Your task to perform on an android device: change alarm snooze length Image 0: 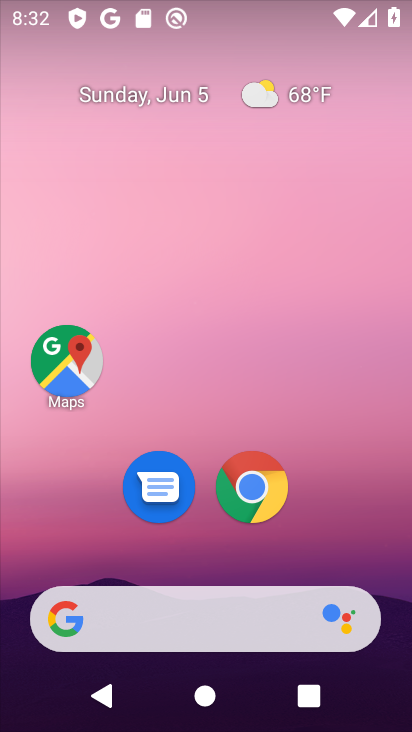
Step 0: drag from (201, 554) to (248, 0)
Your task to perform on an android device: change alarm snooze length Image 1: 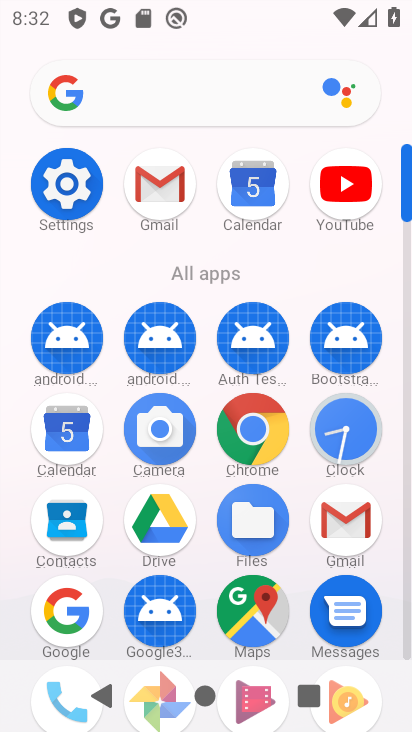
Step 1: click (348, 431)
Your task to perform on an android device: change alarm snooze length Image 2: 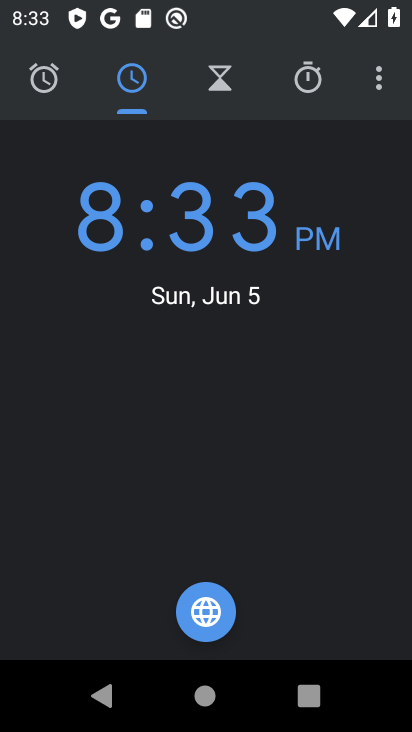
Step 2: click (375, 87)
Your task to perform on an android device: change alarm snooze length Image 3: 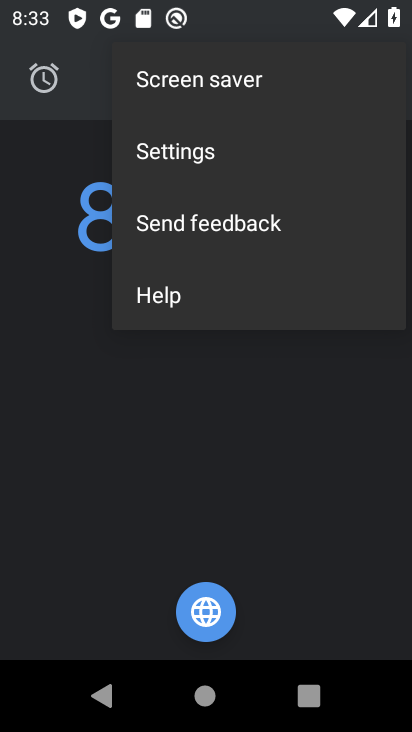
Step 3: click (176, 142)
Your task to perform on an android device: change alarm snooze length Image 4: 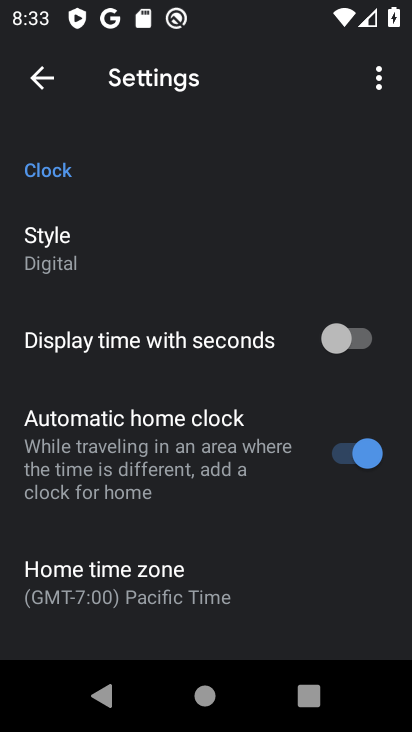
Step 4: drag from (169, 588) to (234, 270)
Your task to perform on an android device: change alarm snooze length Image 5: 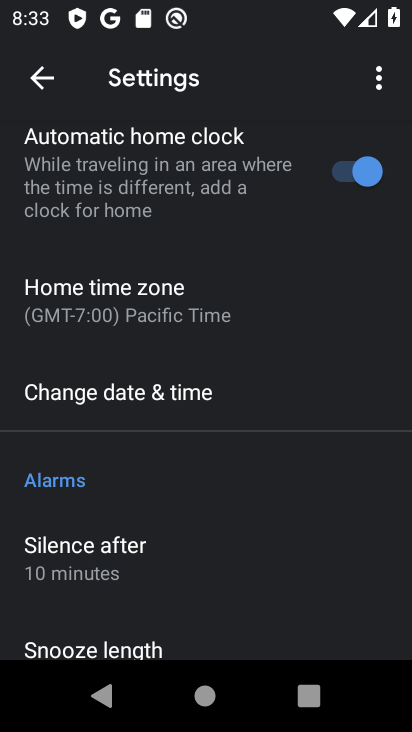
Step 5: drag from (196, 573) to (242, 273)
Your task to perform on an android device: change alarm snooze length Image 6: 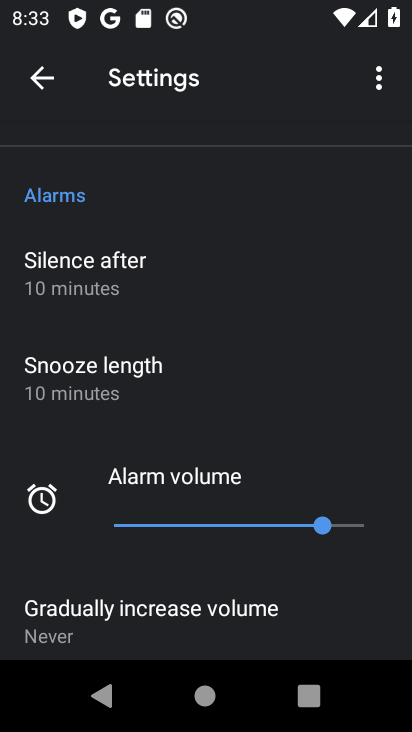
Step 6: click (113, 384)
Your task to perform on an android device: change alarm snooze length Image 7: 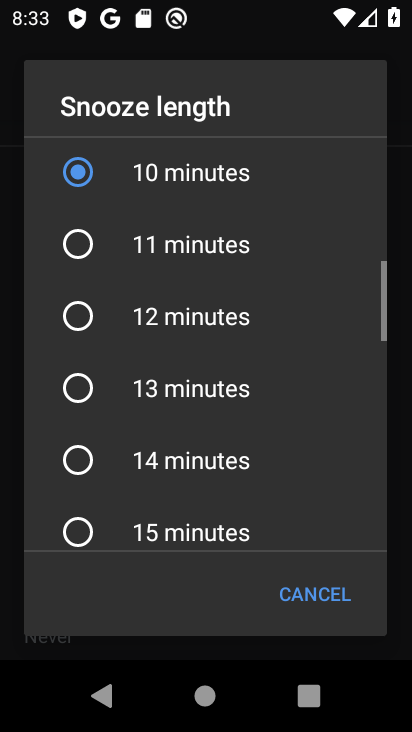
Step 7: click (98, 251)
Your task to perform on an android device: change alarm snooze length Image 8: 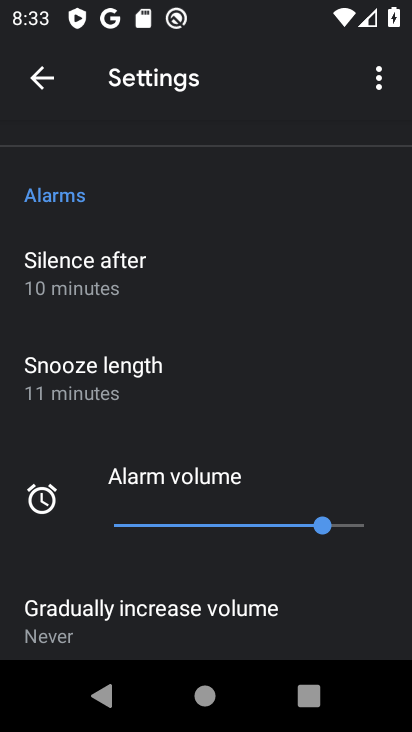
Step 8: task complete